Your task to perform on an android device: Show me productivity apps on the Play Store Image 0: 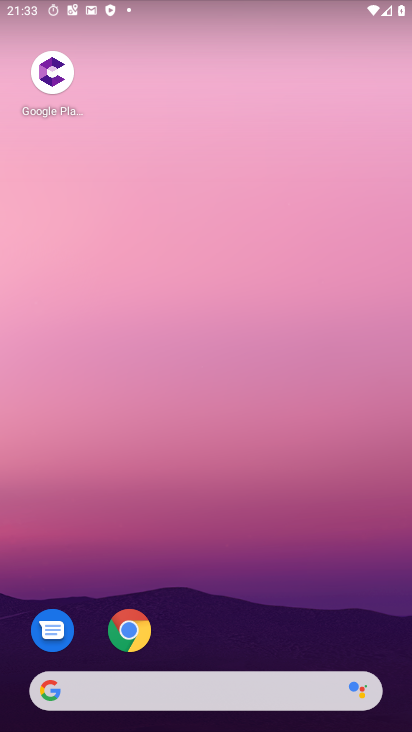
Step 0: drag from (106, 415) to (153, 201)
Your task to perform on an android device: Show me productivity apps on the Play Store Image 1: 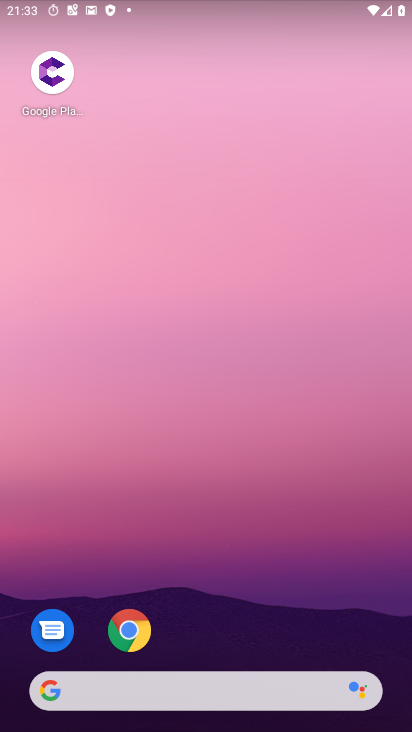
Step 1: drag from (40, 634) to (170, 131)
Your task to perform on an android device: Show me productivity apps on the Play Store Image 2: 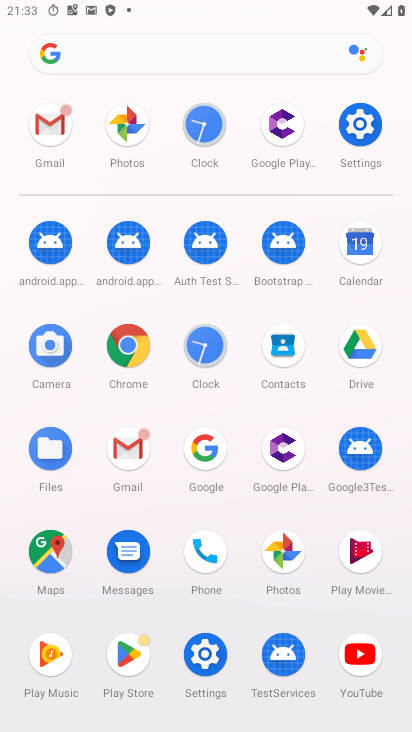
Step 2: click (131, 649)
Your task to perform on an android device: Show me productivity apps on the Play Store Image 3: 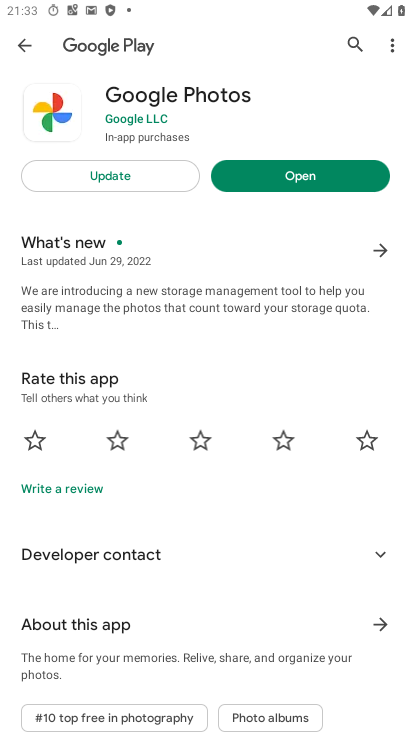
Step 3: click (24, 37)
Your task to perform on an android device: Show me productivity apps on the Play Store Image 4: 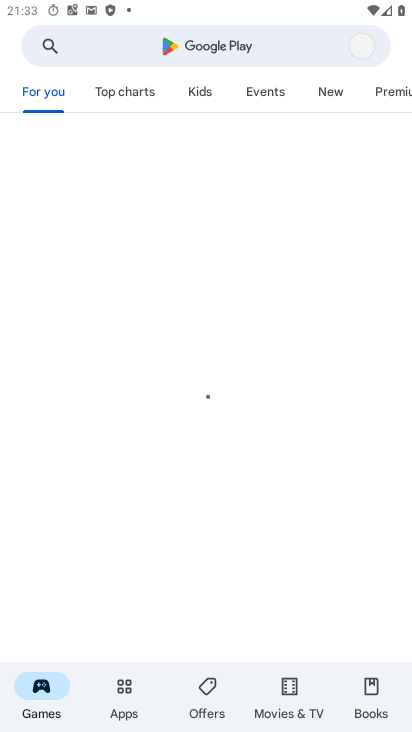
Step 4: click (120, 35)
Your task to perform on an android device: Show me productivity apps on the Play Store Image 5: 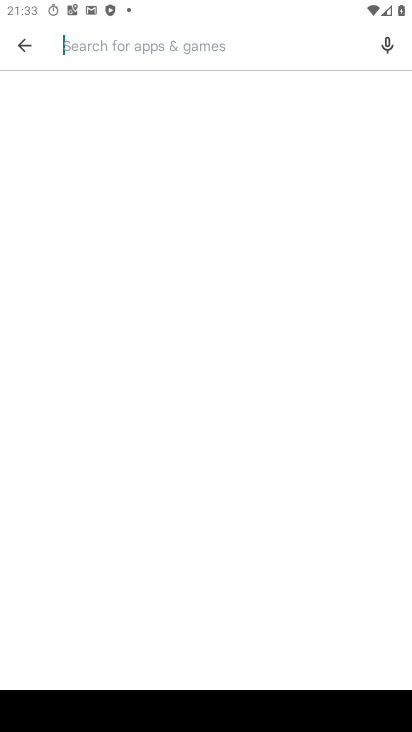
Step 5: type "productivity apps"
Your task to perform on an android device: Show me productivity apps on the Play Store Image 6: 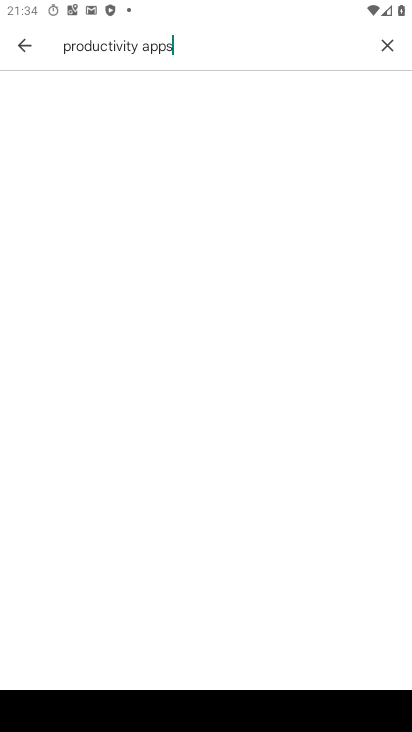
Step 6: type ""
Your task to perform on an android device: Show me productivity apps on the Play Store Image 7: 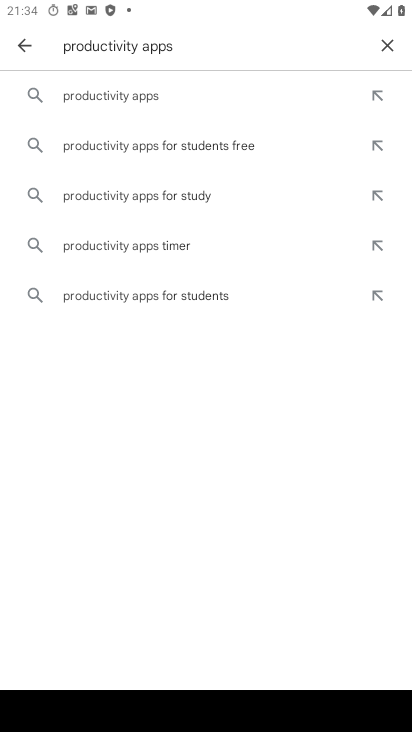
Step 7: click (146, 101)
Your task to perform on an android device: Show me productivity apps on the Play Store Image 8: 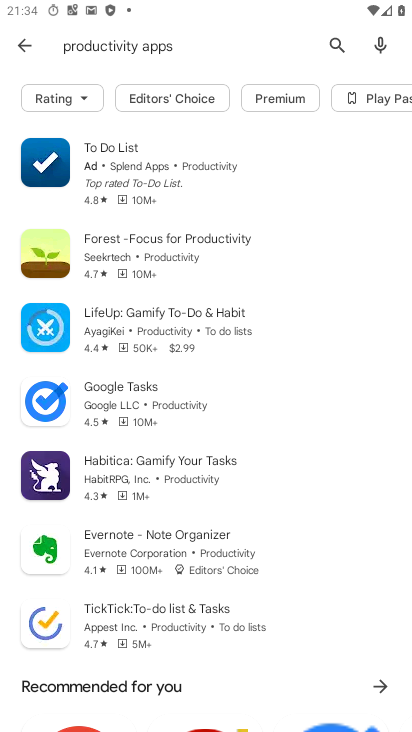
Step 8: task complete